Your task to perform on an android device: turn smart compose on in the gmail app Image 0: 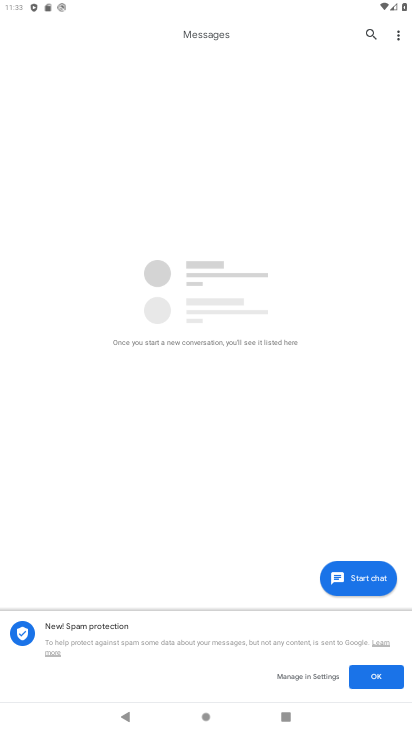
Step 0: press home button
Your task to perform on an android device: turn smart compose on in the gmail app Image 1: 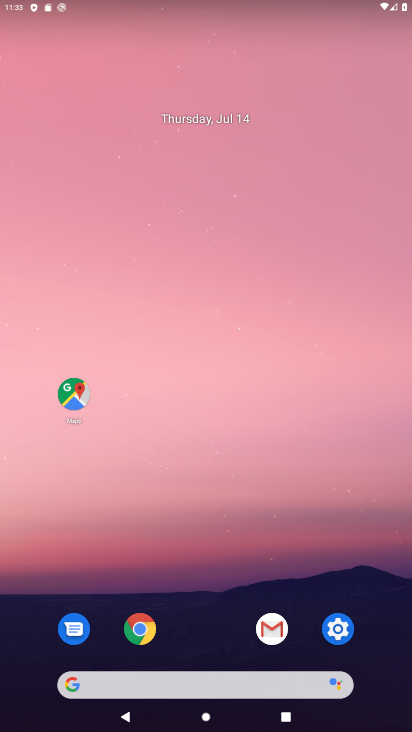
Step 1: click (275, 627)
Your task to perform on an android device: turn smart compose on in the gmail app Image 2: 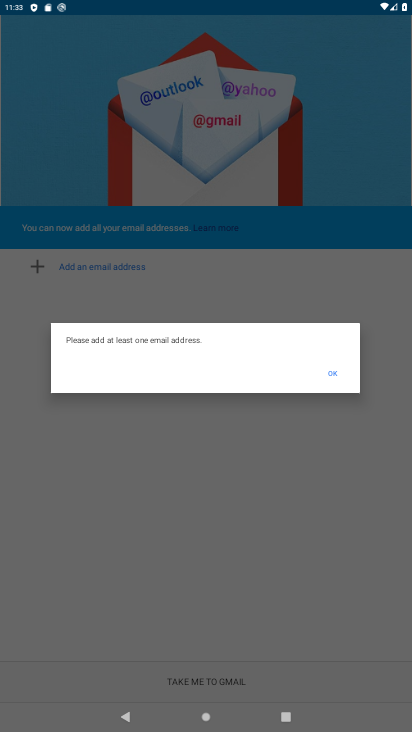
Step 2: click (327, 379)
Your task to perform on an android device: turn smart compose on in the gmail app Image 3: 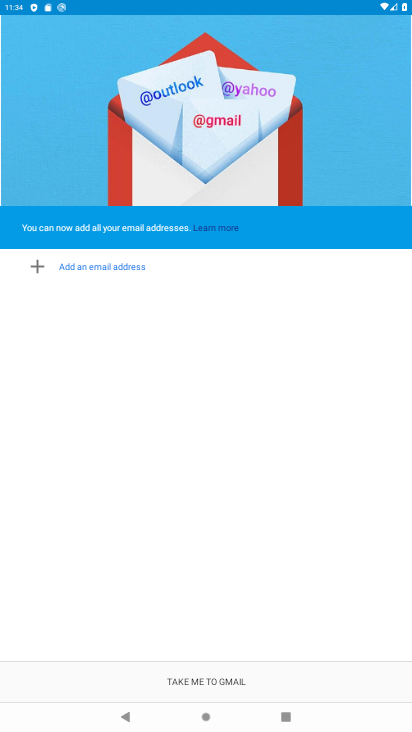
Step 3: task complete